Your task to perform on an android device: Go to location settings Image 0: 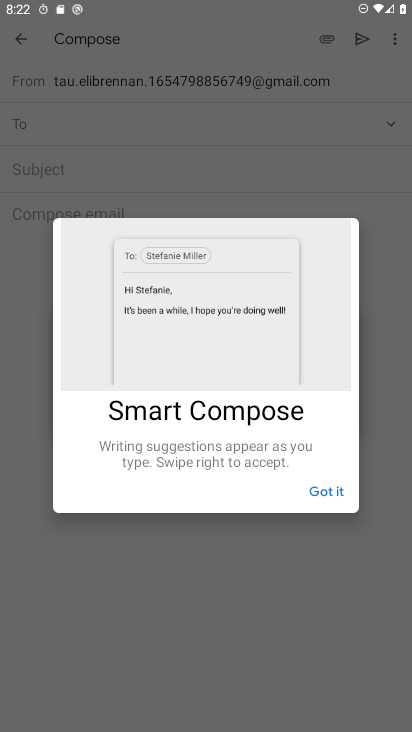
Step 0: press home button
Your task to perform on an android device: Go to location settings Image 1: 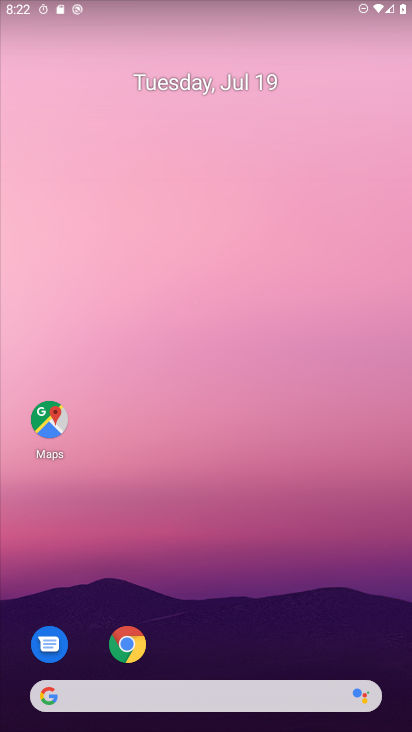
Step 1: drag from (173, 397) to (376, 19)
Your task to perform on an android device: Go to location settings Image 2: 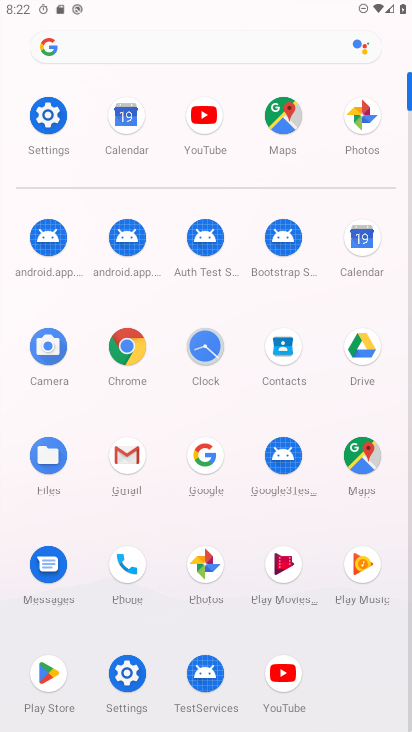
Step 2: click (119, 690)
Your task to perform on an android device: Go to location settings Image 3: 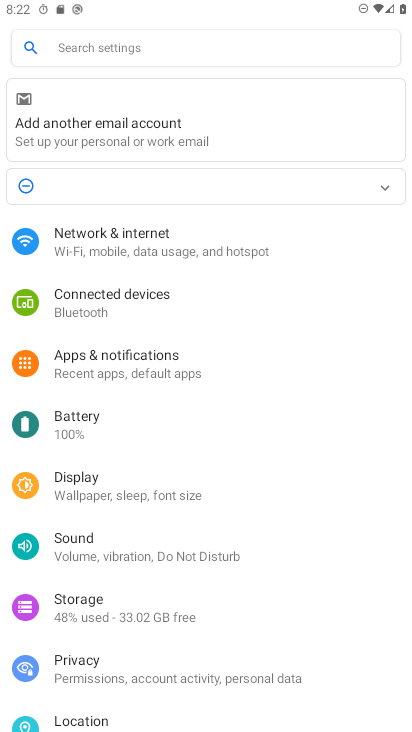
Step 3: drag from (164, 652) to (247, 244)
Your task to perform on an android device: Go to location settings Image 4: 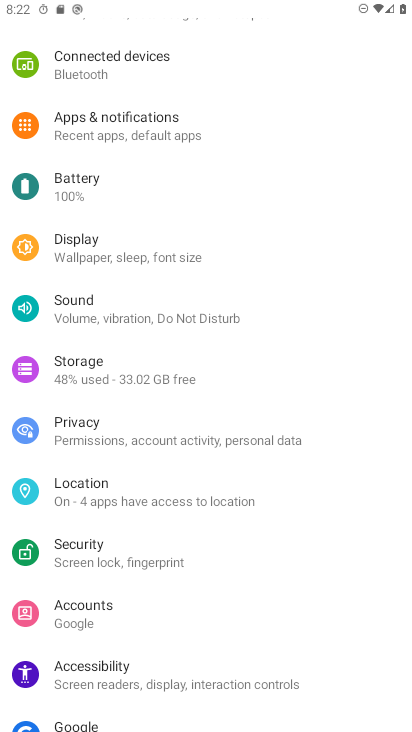
Step 4: click (131, 492)
Your task to perform on an android device: Go to location settings Image 5: 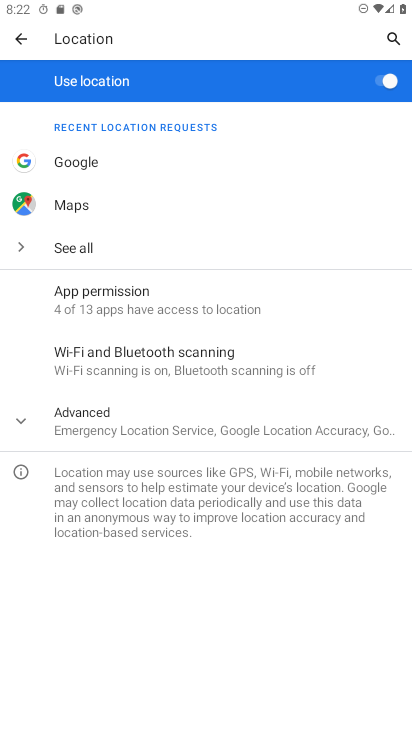
Step 5: task complete